Your task to perform on an android device: uninstall "Microsoft Excel" Image 0: 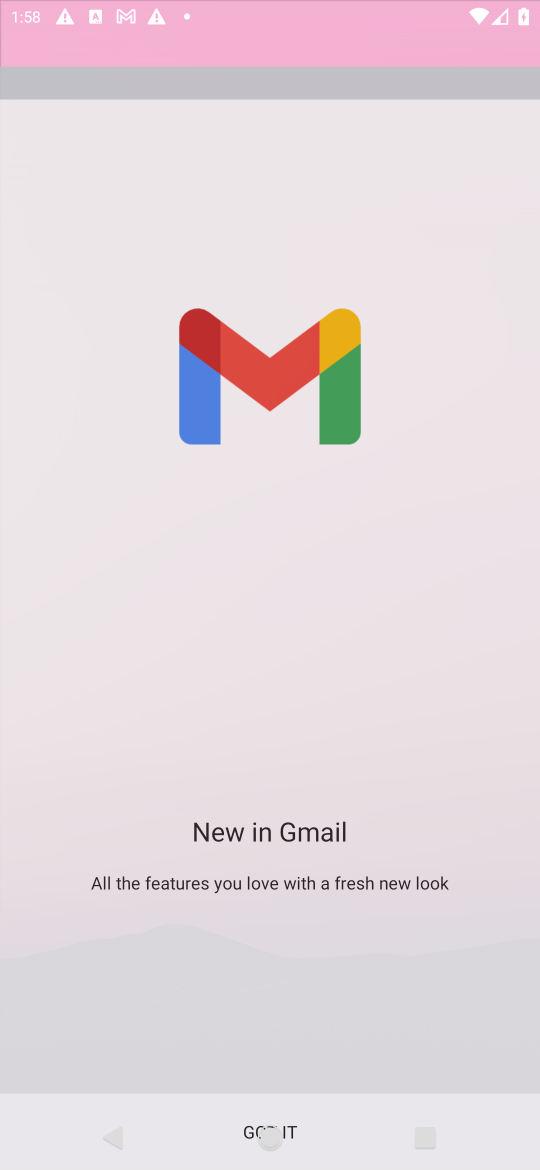
Step 0: press home button
Your task to perform on an android device: uninstall "Microsoft Excel" Image 1: 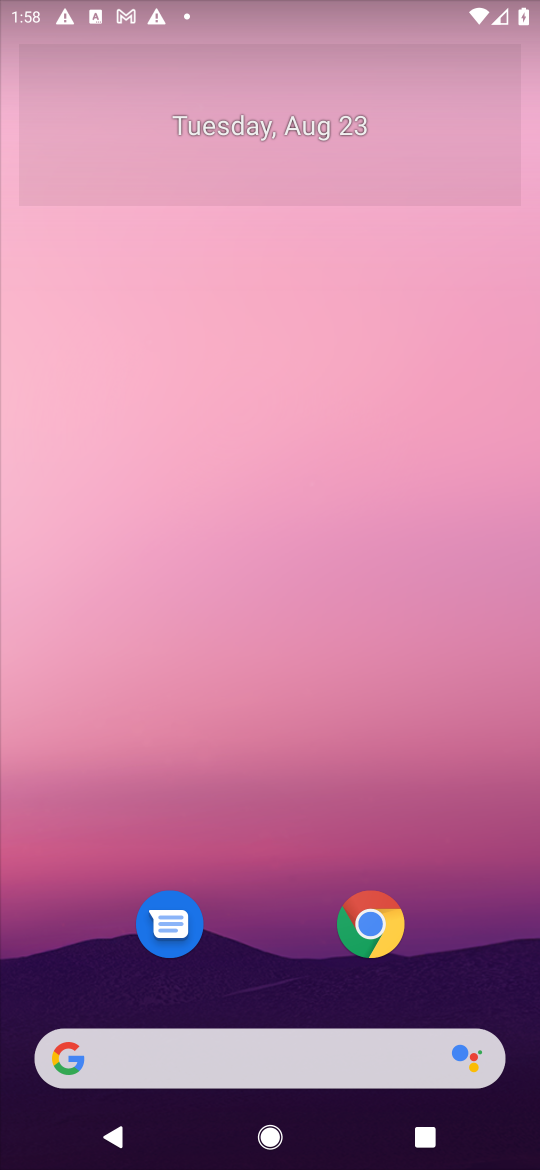
Step 1: drag from (465, 977) to (463, 208)
Your task to perform on an android device: uninstall "Microsoft Excel" Image 2: 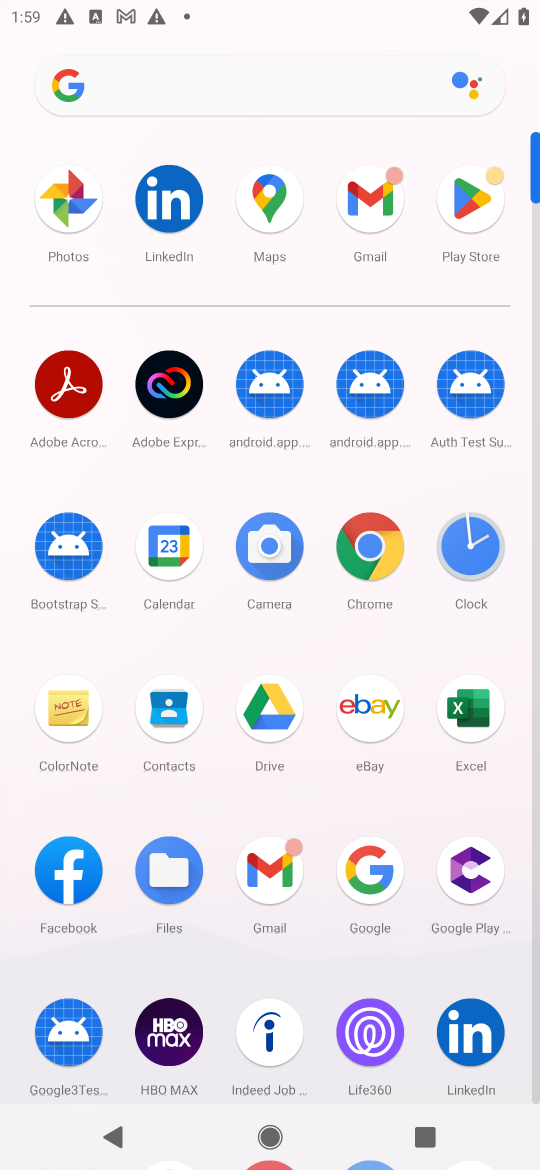
Step 2: click (471, 204)
Your task to perform on an android device: uninstall "Microsoft Excel" Image 3: 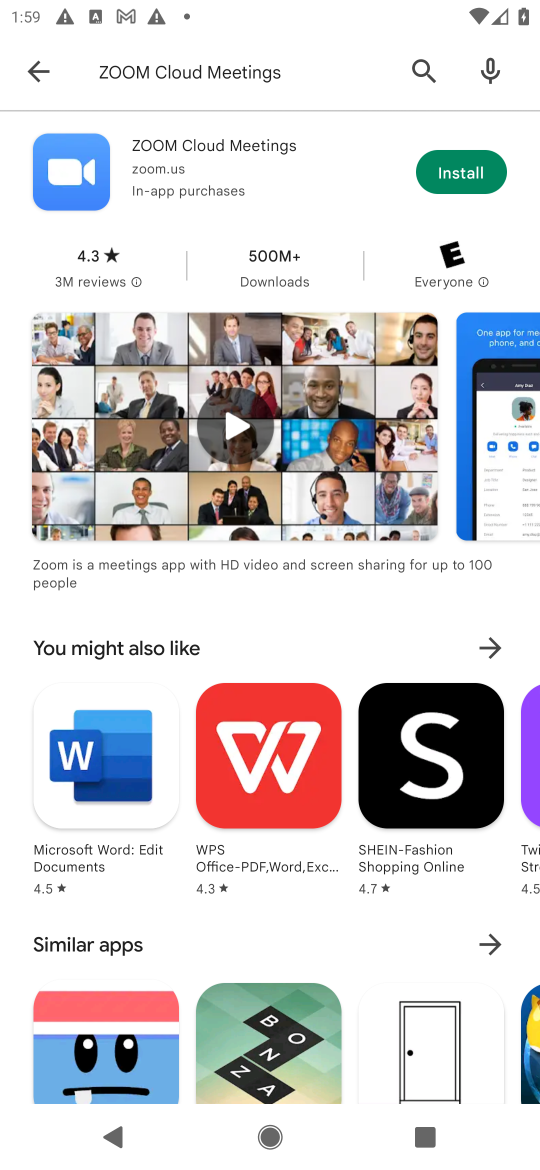
Step 3: press back button
Your task to perform on an android device: uninstall "Microsoft Excel" Image 4: 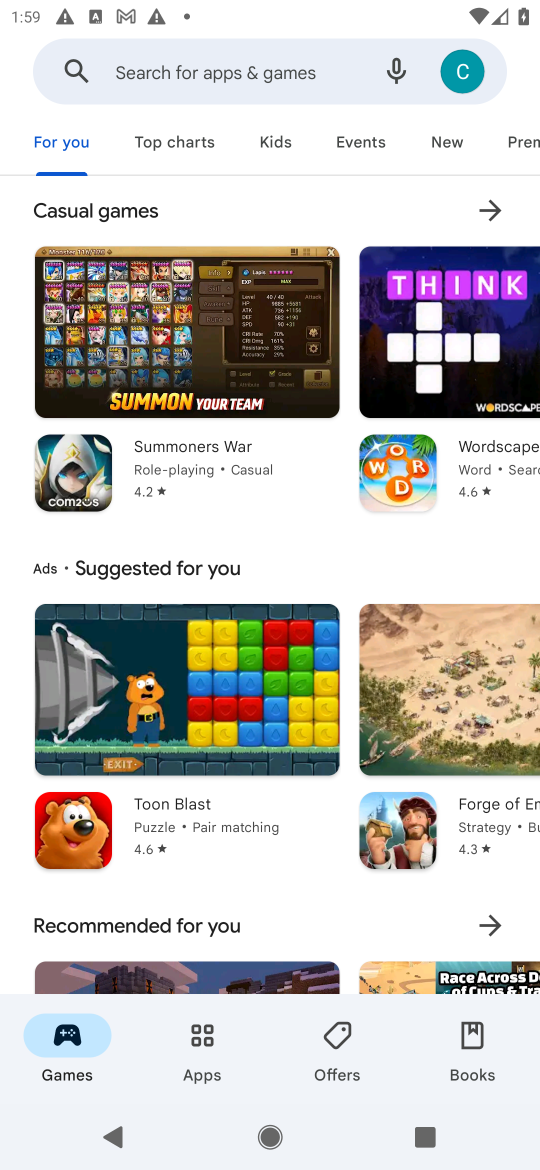
Step 4: click (220, 62)
Your task to perform on an android device: uninstall "Microsoft Excel" Image 5: 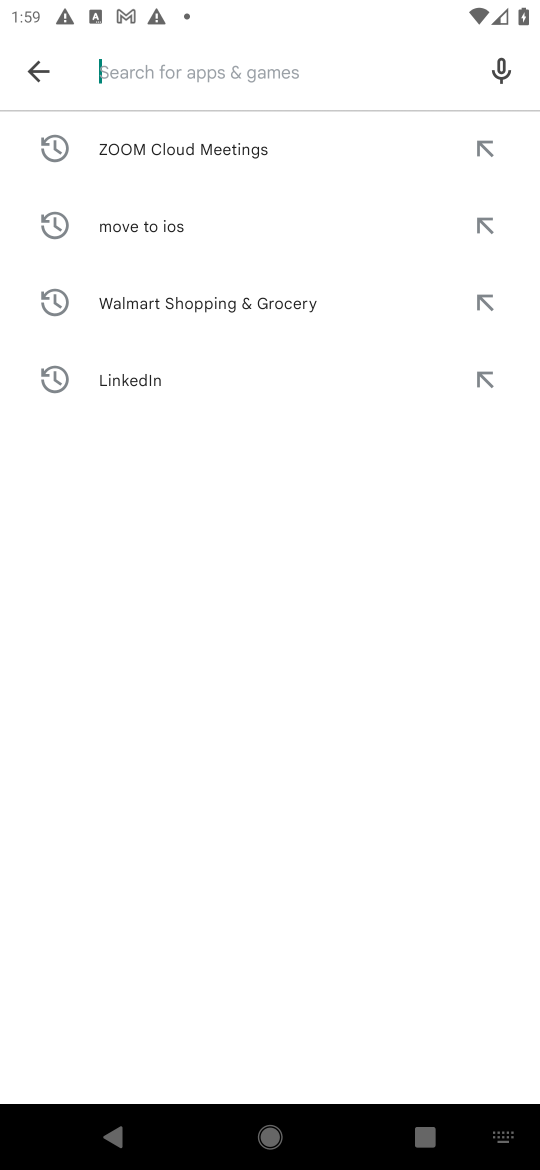
Step 5: type "Microsoft Excel"
Your task to perform on an android device: uninstall "Microsoft Excel" Image 6: 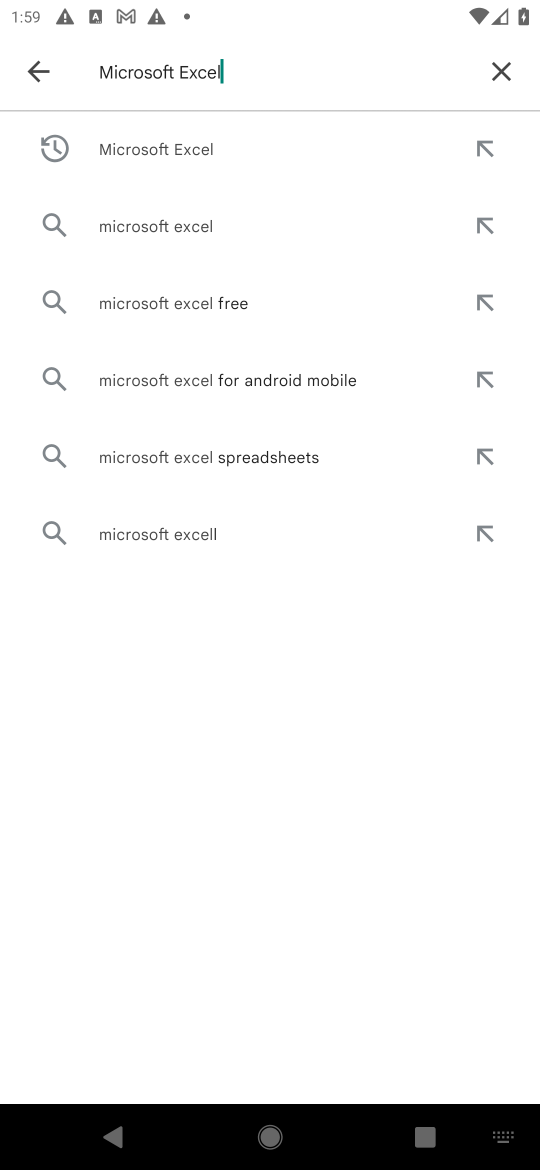
Step 6: press enter
Your task to perform on an android device: uninstall "Microsoft Excel" Image 7: 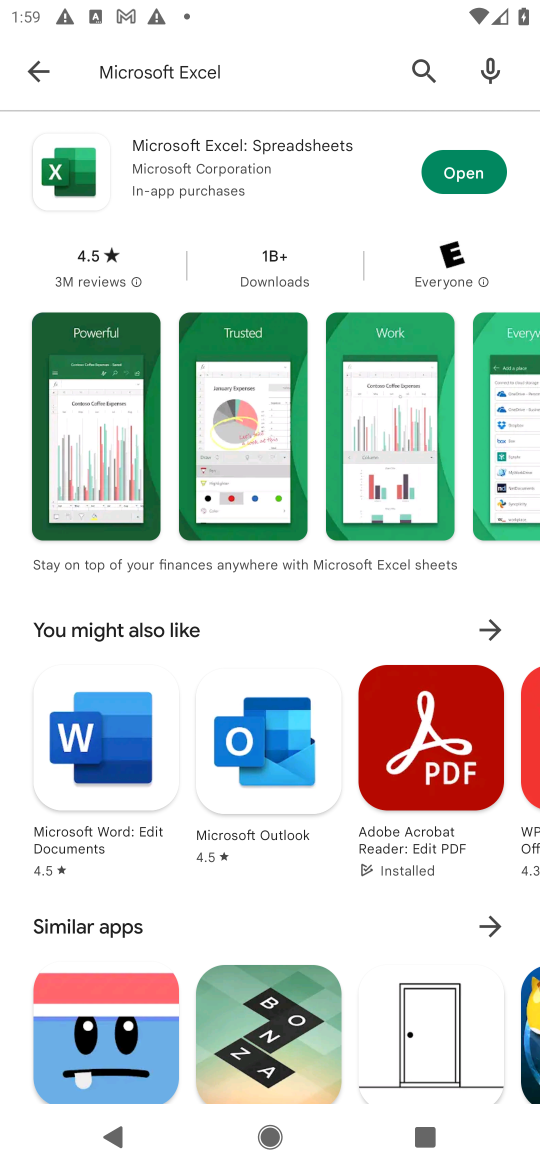
Step 7: task complete